Your task to perform on an android device: toggle translation in the chrome app Image 0: 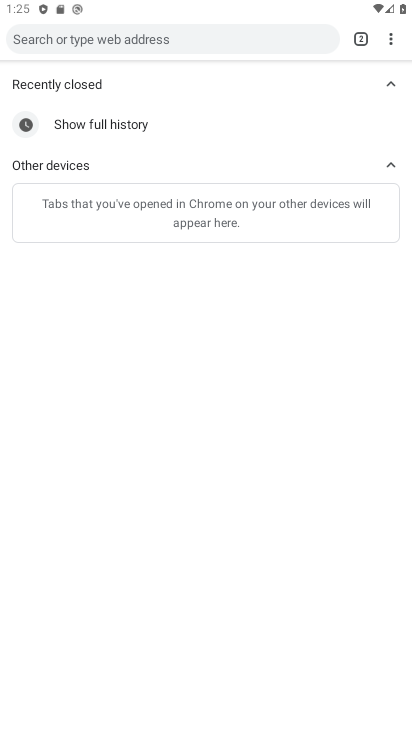
Step 0: press home button
Your task to perform on an android device: toggle translation in the chrome app Image 1: 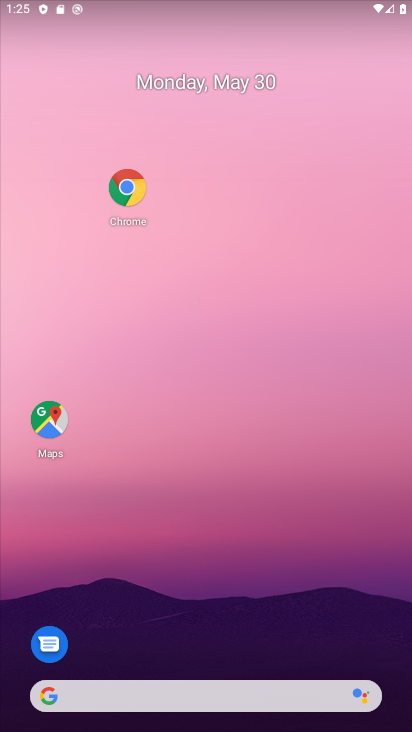
Step 1: click (125, 185)
Your task to perform on an android device: toggle translation in the chrome app Image 2: 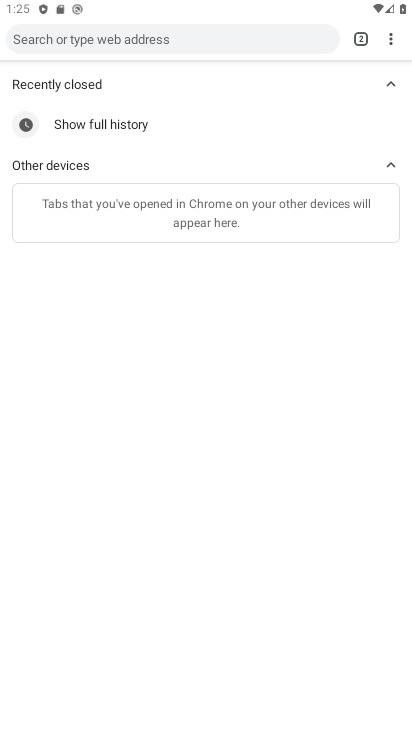
Step 2: click (397, 34)
Your task to perform on an android device: toggle translation in the chrome app Image 3: 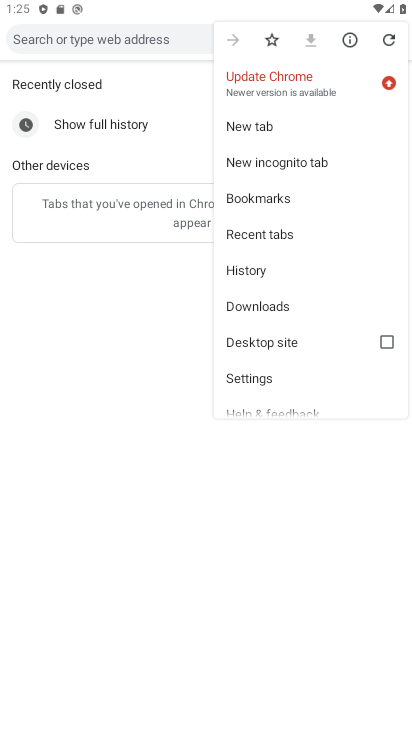
Step 3: click (290, 379)
Your task to perform on an android device: toggle translation in the chrome app Image 4: 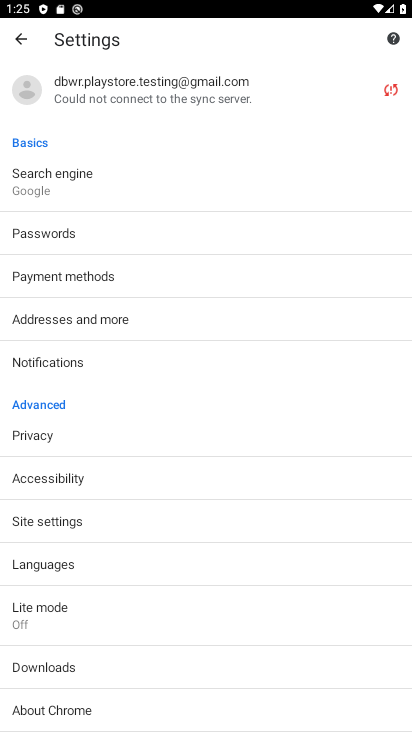
Step 4: click (45, 564)
Your task to perform on an android device: toggle translation in the chrome app Image 5: 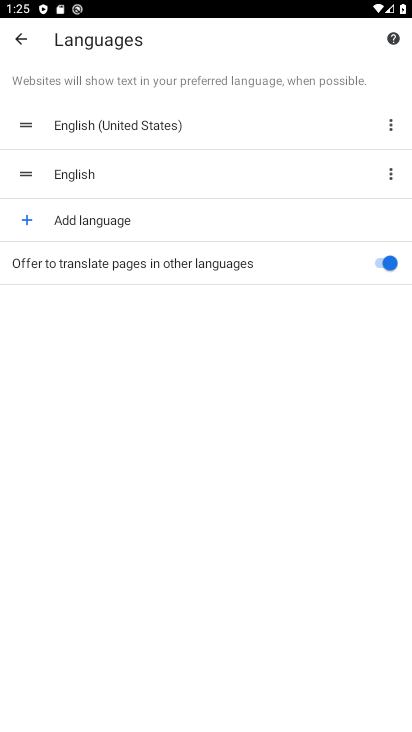
Step 5: click (380, 265)
Your task to perform on an android device: toggle translation in the chrome app Image 6: 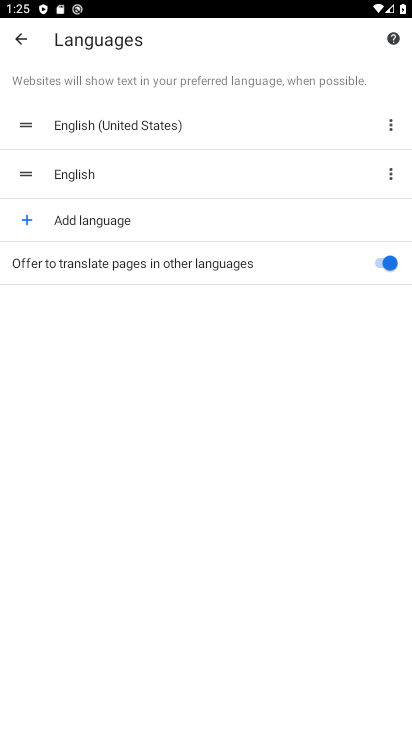
Step 6: click (380, 265)
Your task to perform on an android device: toggle translation in the chrome app Image 7: 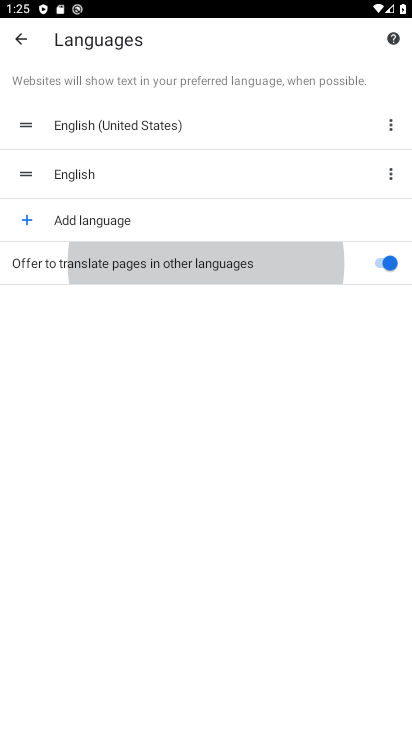
Step 7: click (380, 265)
Your task to perform on an android device: toggle translation in the chrome app Image 8: 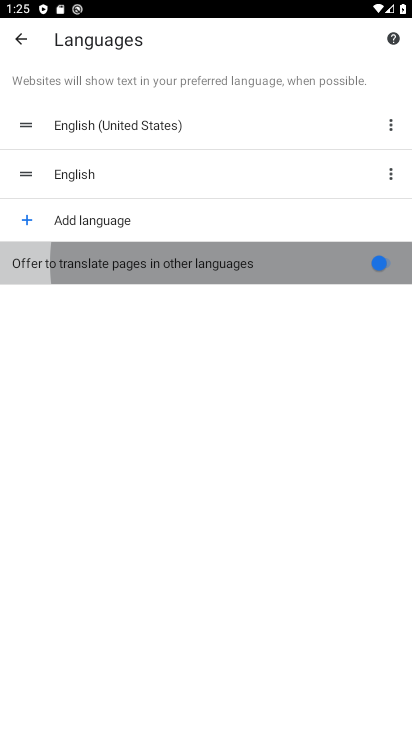
Step 8: click (380, 265)
Your task to perform on an android device: toggle translation in the chrome app Image 9: 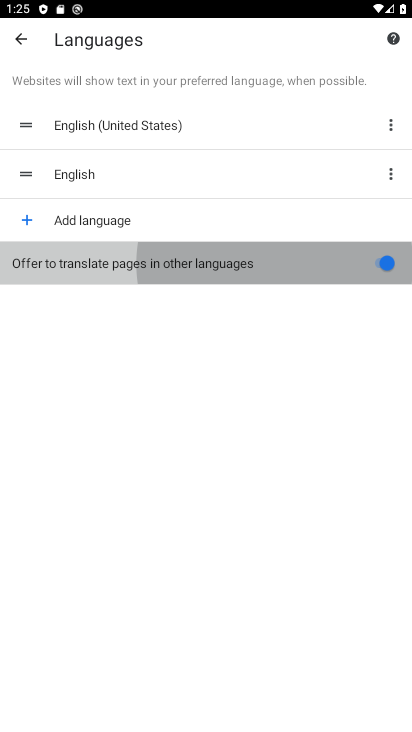
Step 9: click (380, 265)
Your task to perform on an android device: toggle translation in the chrome app Image 10: 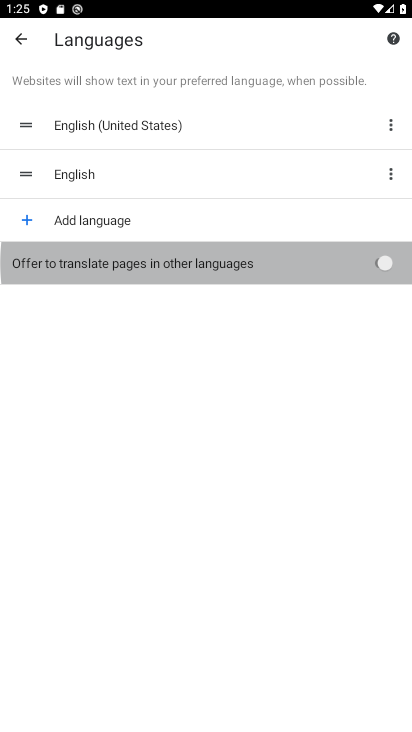
Step 10: click (380, 265)
Your task to perform on an android device: toggle translation in the chrome app Image 11: 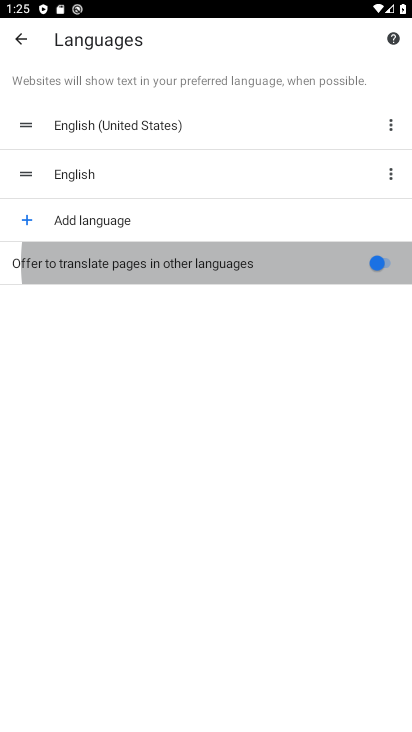
Step 11: click (380, 265)
Your task to perform on an android device: toggle translation in the chrome app Image 12: 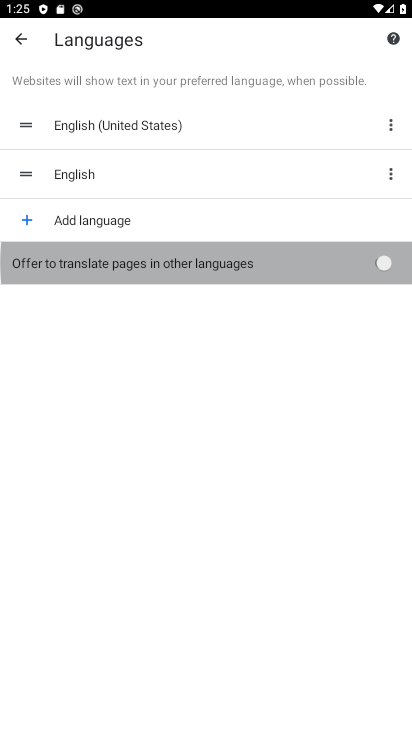
Step 12: click (380, 265)
Your task to perform on an android device: toggle translation in the chrome app Image 13: 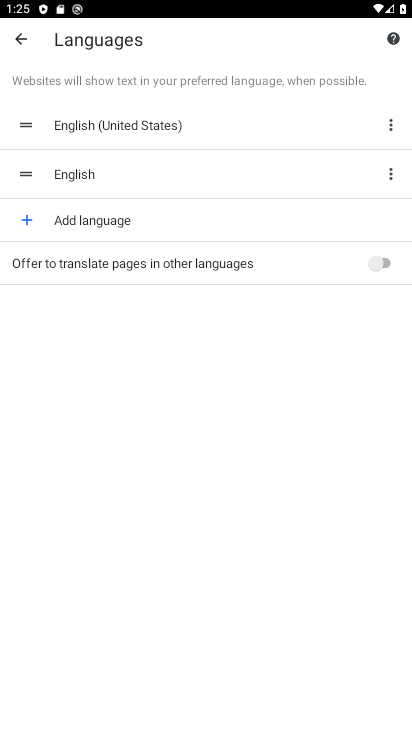
Step 13: click (380, 265)
Your task to perform on an android device: toggle translation in the chrome app Image 14: 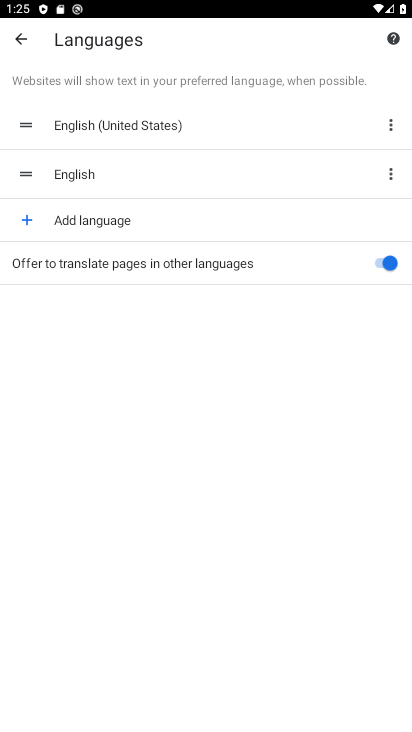
Step 14: task complete